Your task to perform on an android device: show emergency info Image 0: 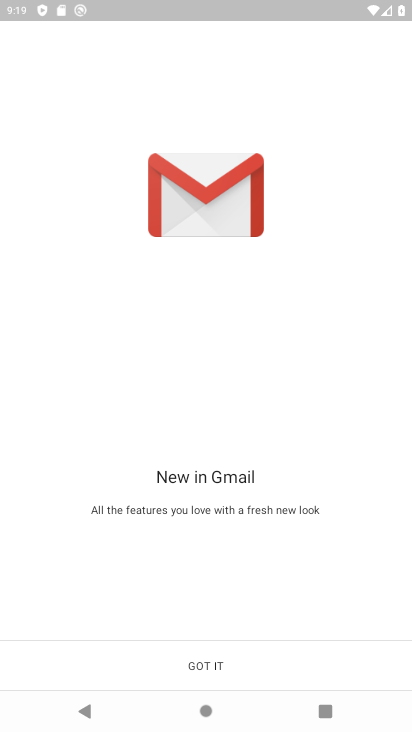
Step 0: press home button
Your task to perform on an android device: show emergency info Image 1: 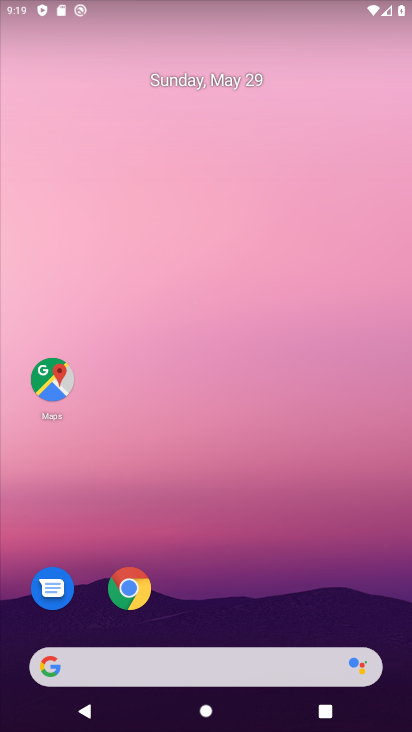
Step 1: drag from (89, 491) to (314, 83)
Your task to perform on an android device: show emergency info Image 2: 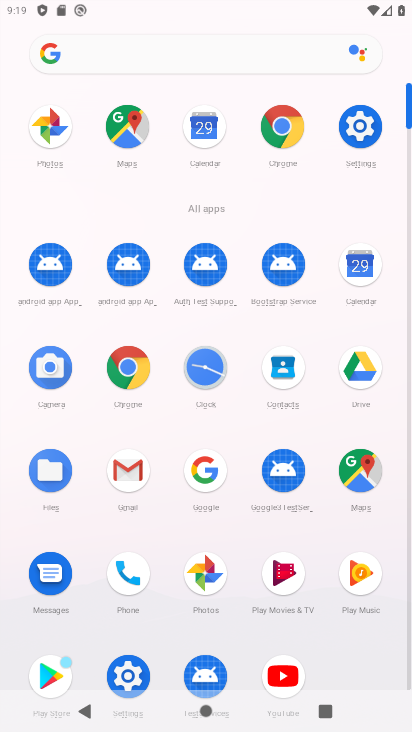
Step 2: click (358, 123)
Your task to perform on an android device: show emergency info Image 3: 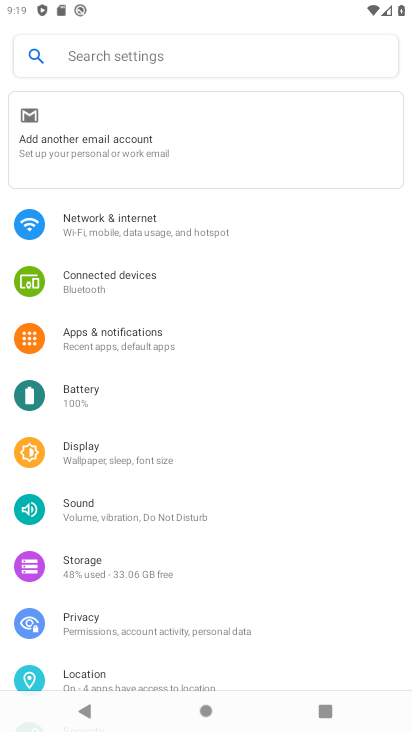
Step 3: drag from (12, 570) to (295, 122)
Your task to perform on an android device: show emergency info Image 4: 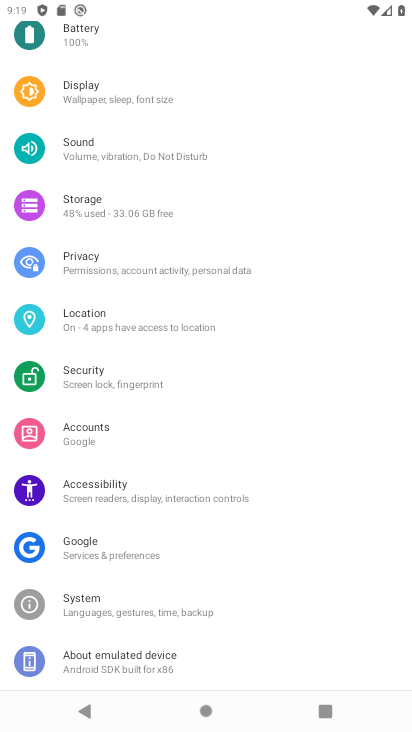
Step 4: drag from (5, 564) to (253, 207)
Your task to perform on an android device: show emergency info Image 5: 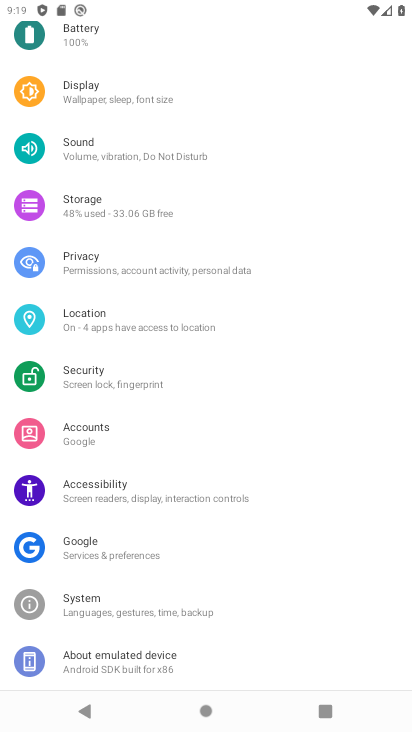
Step 5: click (98, 647)
Your task to perform on an android device: show emergency info Image 6: 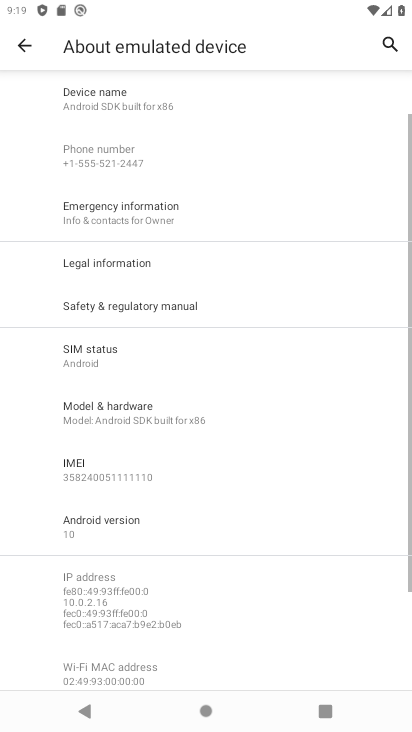
Step 6: click (190, 223)
Your task to perform on an android device: show emergency info Image 7: 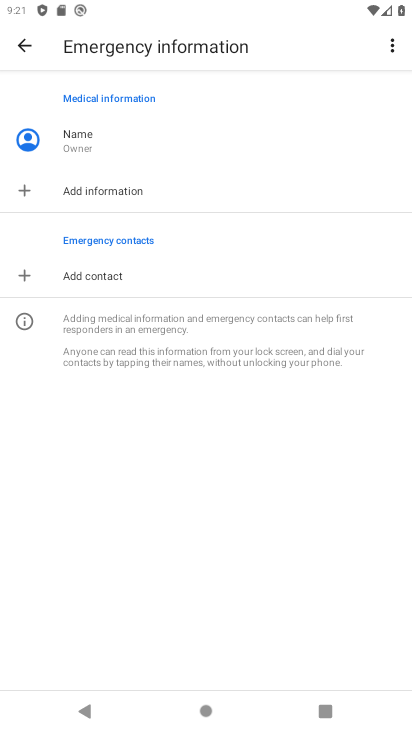
Step 7: task complete